Your task to perform on an android device: turn off notifications settings in the gmail app Image 0: 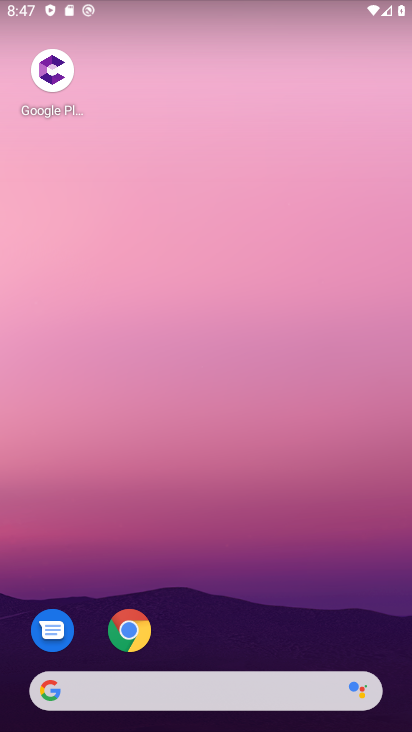
Step 0: drag from (145, 670) to (167, 80)
Your task to perform on an android device: turn off notifications settings in the gmail app Image 1: 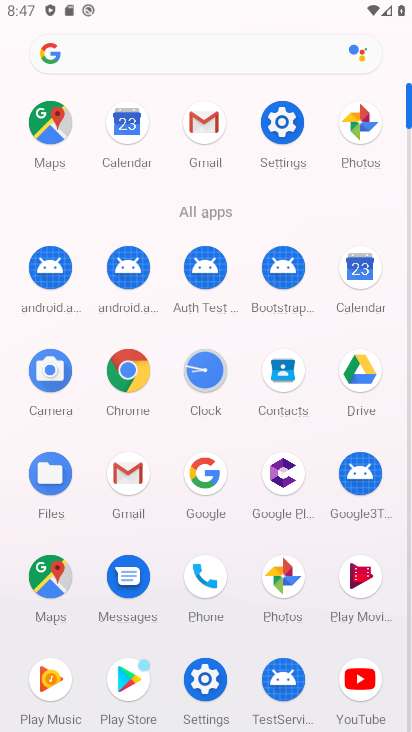
Step 1: click (204, 124)
Your task to perform on an android device: turn off notifications settings in the gmail app Image 2: 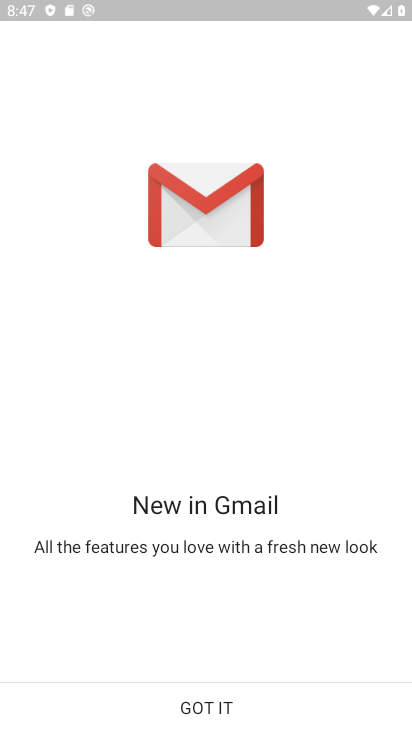
Step 2: click (202, 714)
Your task to perform on an android device: turn off notifications settings in the gmail app Image 3: 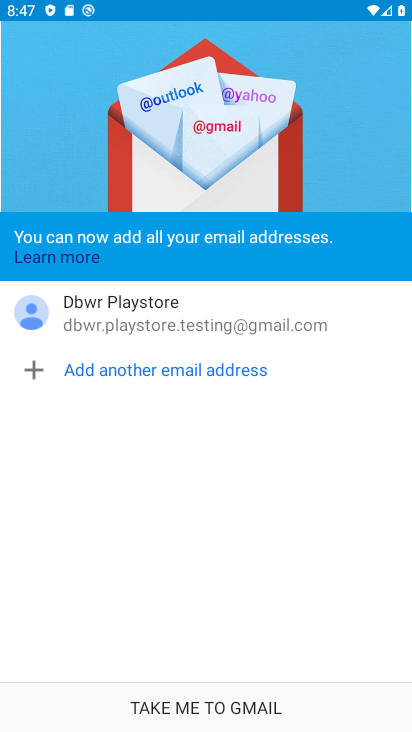
Step 3: click (202, 714)
Your task to perform on an android device: turn off notifications settings in the gmail app Image 4: 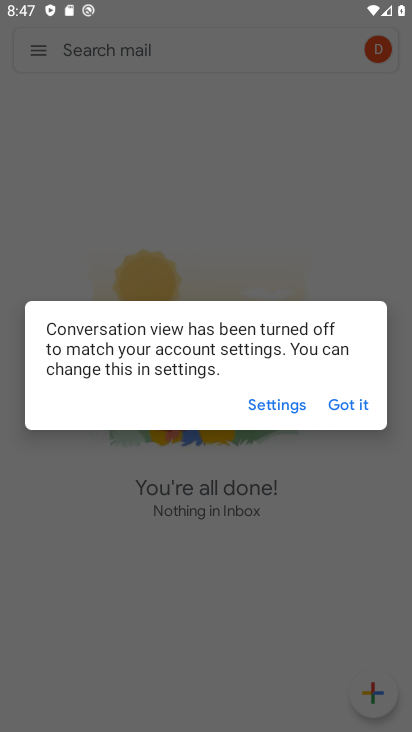
Step 4: click (350, 407)
Your task to perform on an android device: turn off notifications settings in the gmail app Image 5: 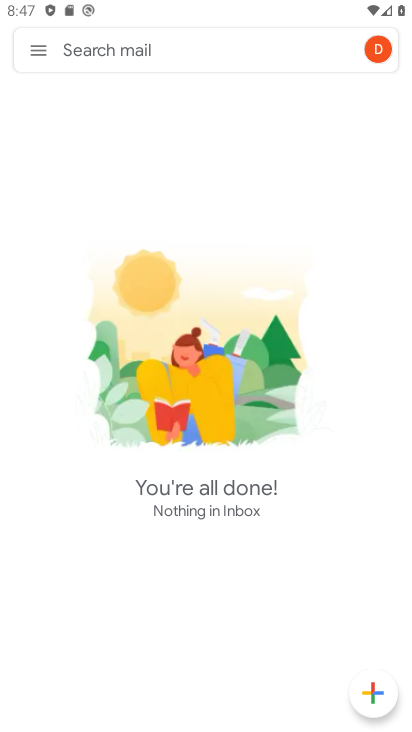
Step 5: click (35, 45)
Your task to perform on an android device: turn off notifications settings in the gmail app Image 6: 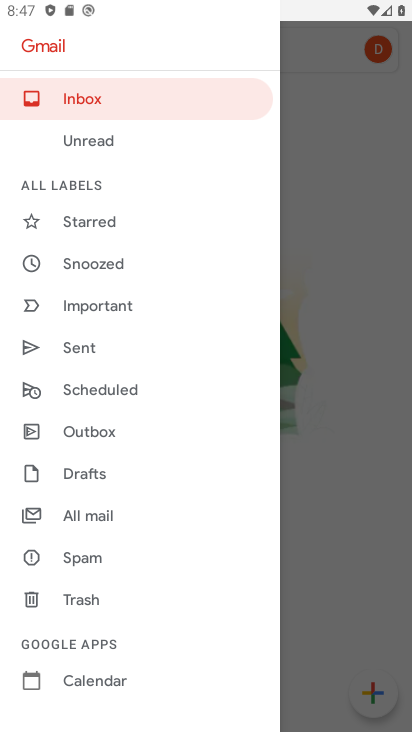
Step 6: drag from (153, 688) to (139, 356)
Your task to perform on an android device: turn off notifications settings in the gmail app Image 7: 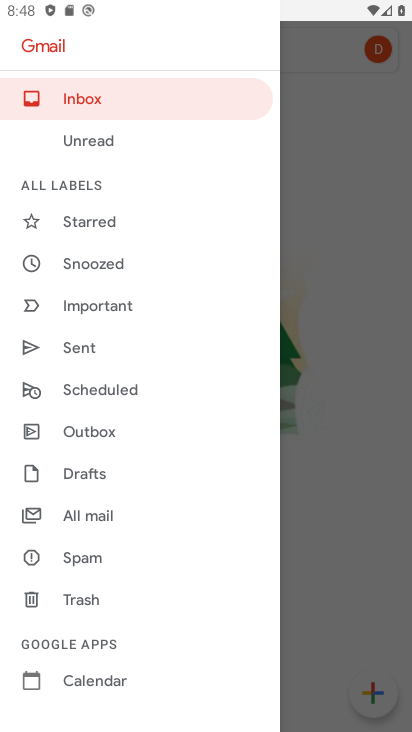
Step 7: drag from (113, 678) to (94, 321)
Your task to perform on an android device: turn off notifications settings in the gmail app Image 8: 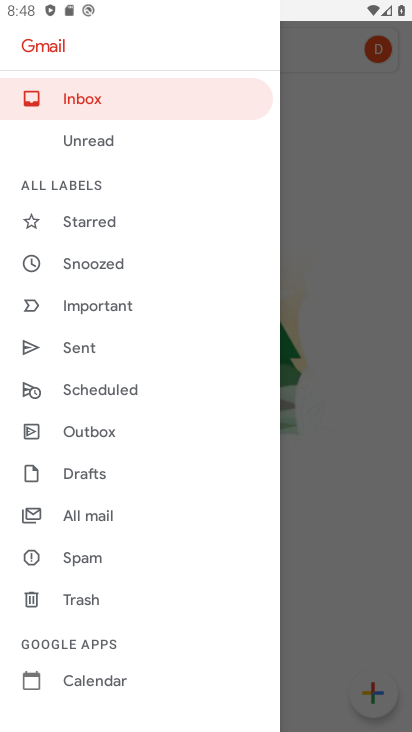
Step 8: drag from (100, 658) to (70, 283)
Your task to perform on an android device: turn off notifications settings in the gmail app Image 9: 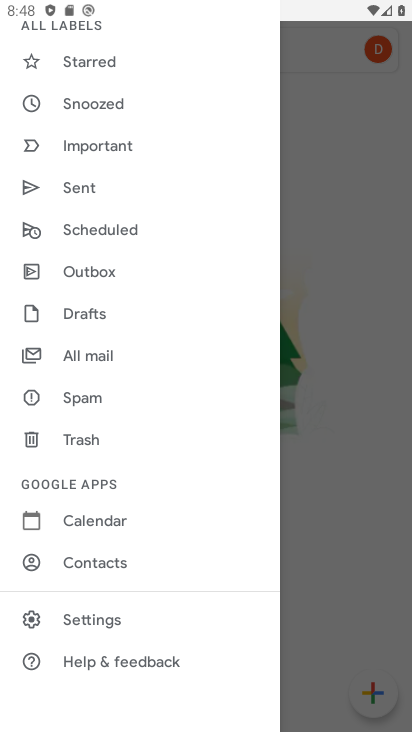
Step 9: click (91, 626)
Your task to perform on an android device: turn off notifications settings in the gmail app Image 10: 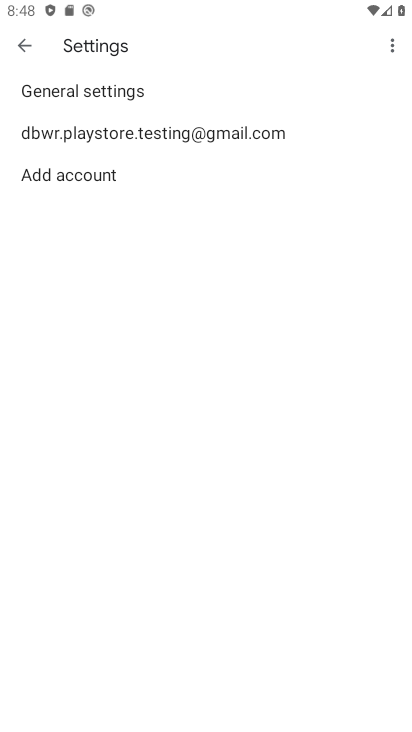
Step 10: click (121, 138)
Your task to perform on an android device: turn off notifications settings in the gmail app Image 11: 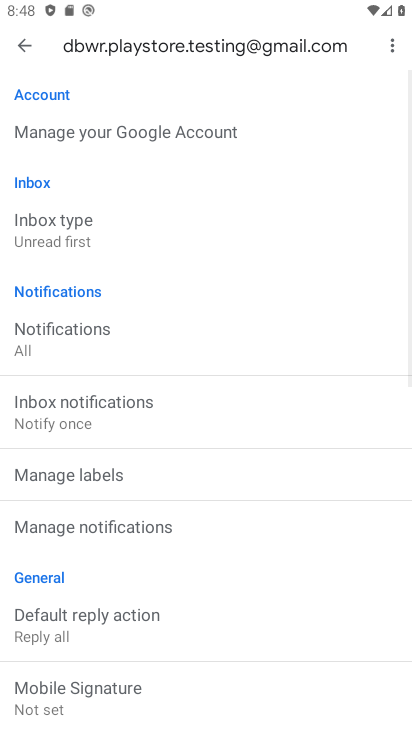
Step 11: click (21, 39)
Your task to perform on an android device: turn off notifications settings in the gmail app Image 12: 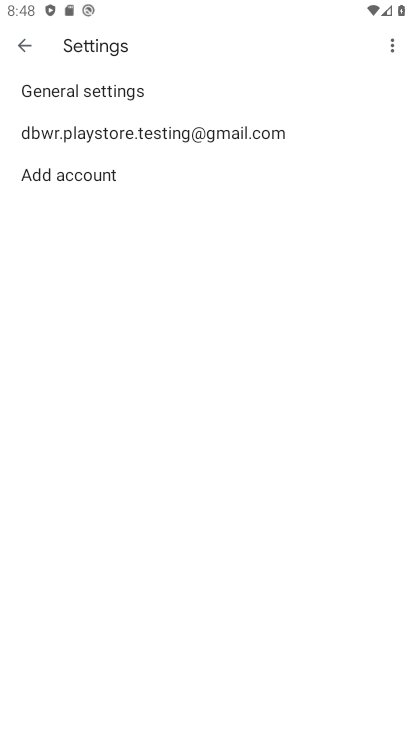
Step 12: click (55, 96)
Your task to perform on an android device: turn off notifications settings in the gmail app Image 13: 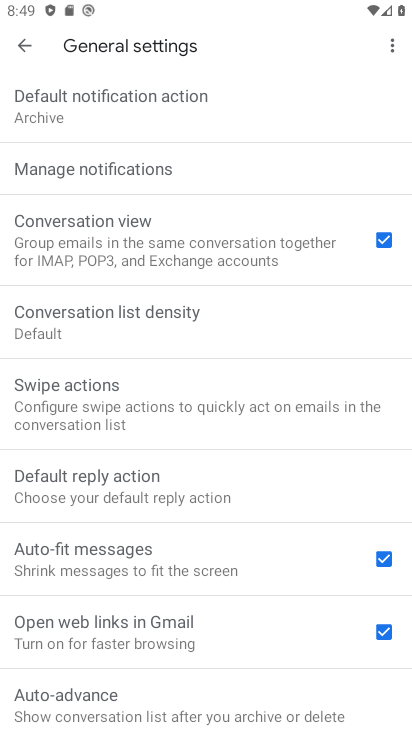
Step 13: drag from (119, 716) to (113, 394)
Your task to perform on an android device: turn off notifications settings in the gmail app Image 14: 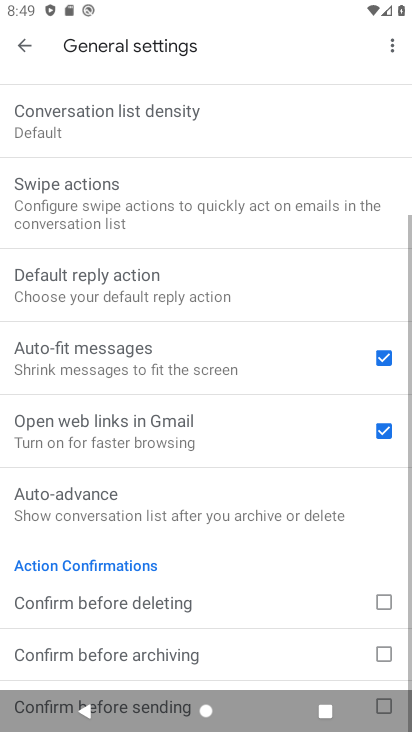
Step 14: drag from (155, 188) to (178, 501)
Your task to perform on an android device: turn off notifications settings in the gmail app Image 15: 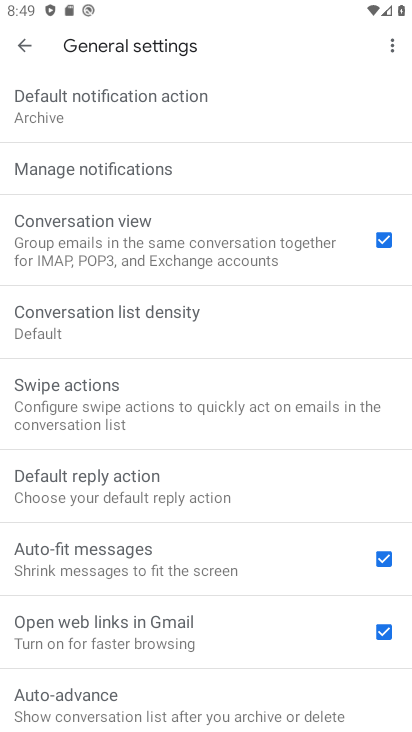
Step 15: click (146, 166)
Your task to perform on an android device: turn off notifications settings in the gmail app Image 16: 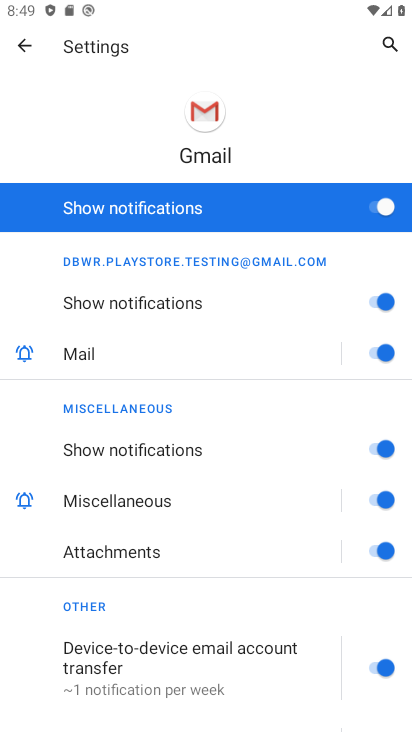
Step 16: click (378, 211)
Your task to perform on an android device: turn off notifications settings in the gmail app Image 17: 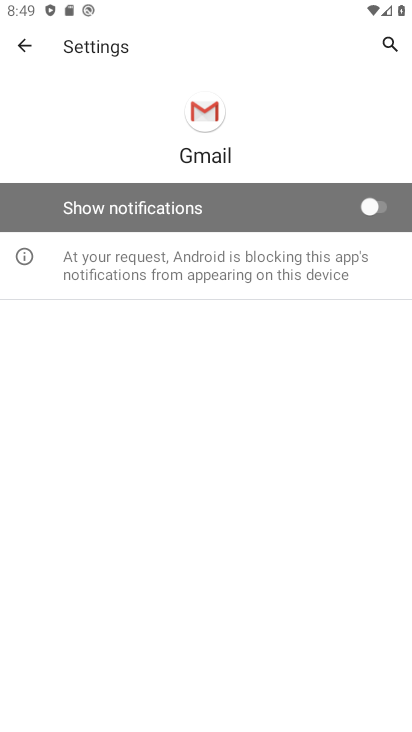
Step 17: task complete